Your task to perform on an android device: See recent photos Image 0: 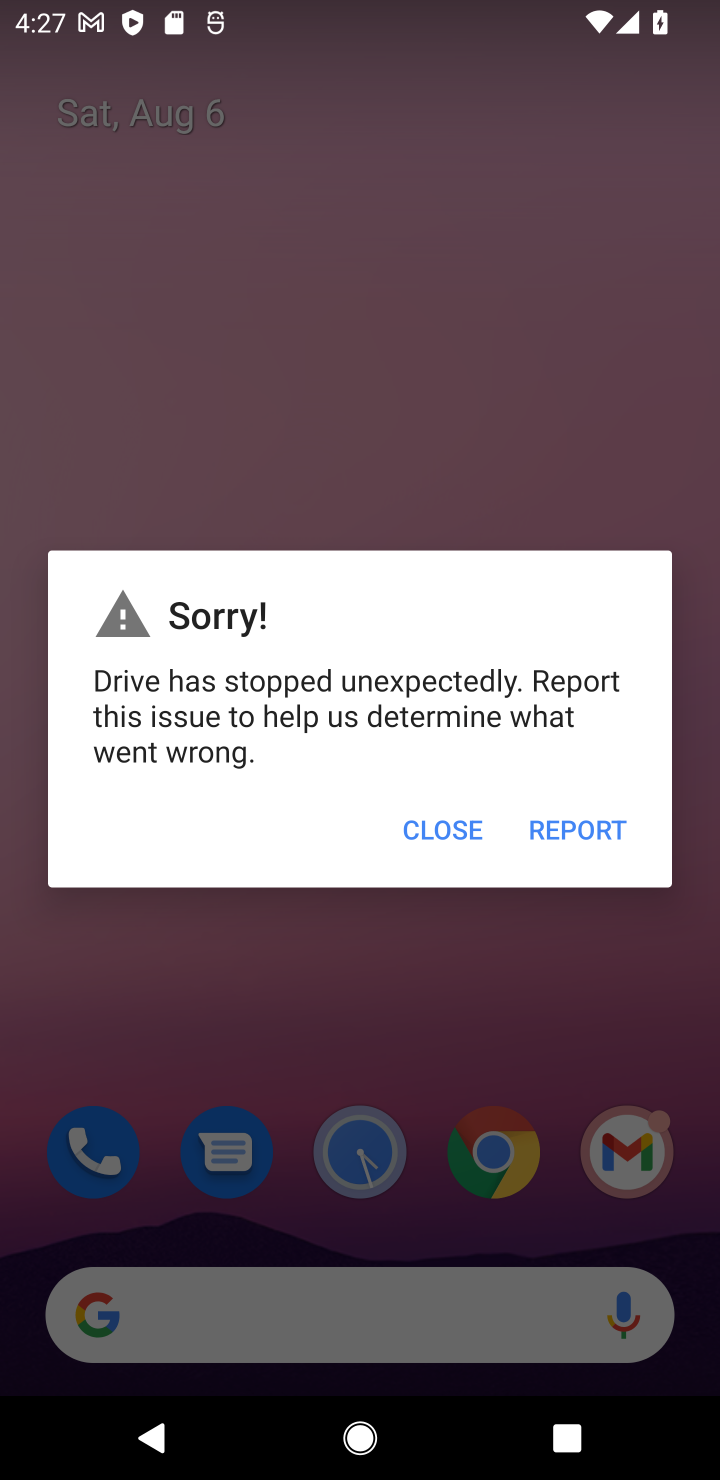
Step 0: press home button
Your task to perform on an android device: See recent photos Image 1: 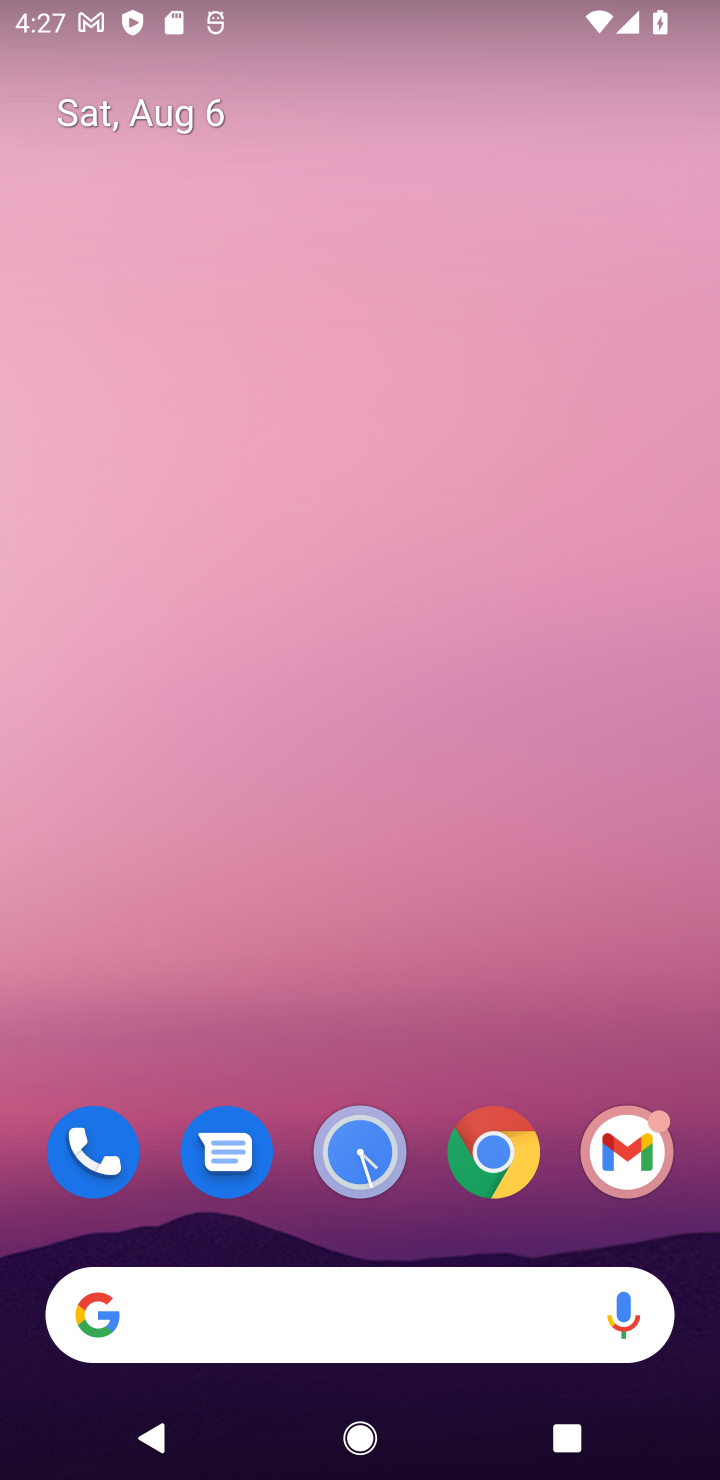
Step 1: drag from (315, 1232) to (413, 182)
Your task to perform on an android device: See recent photos Image 2: 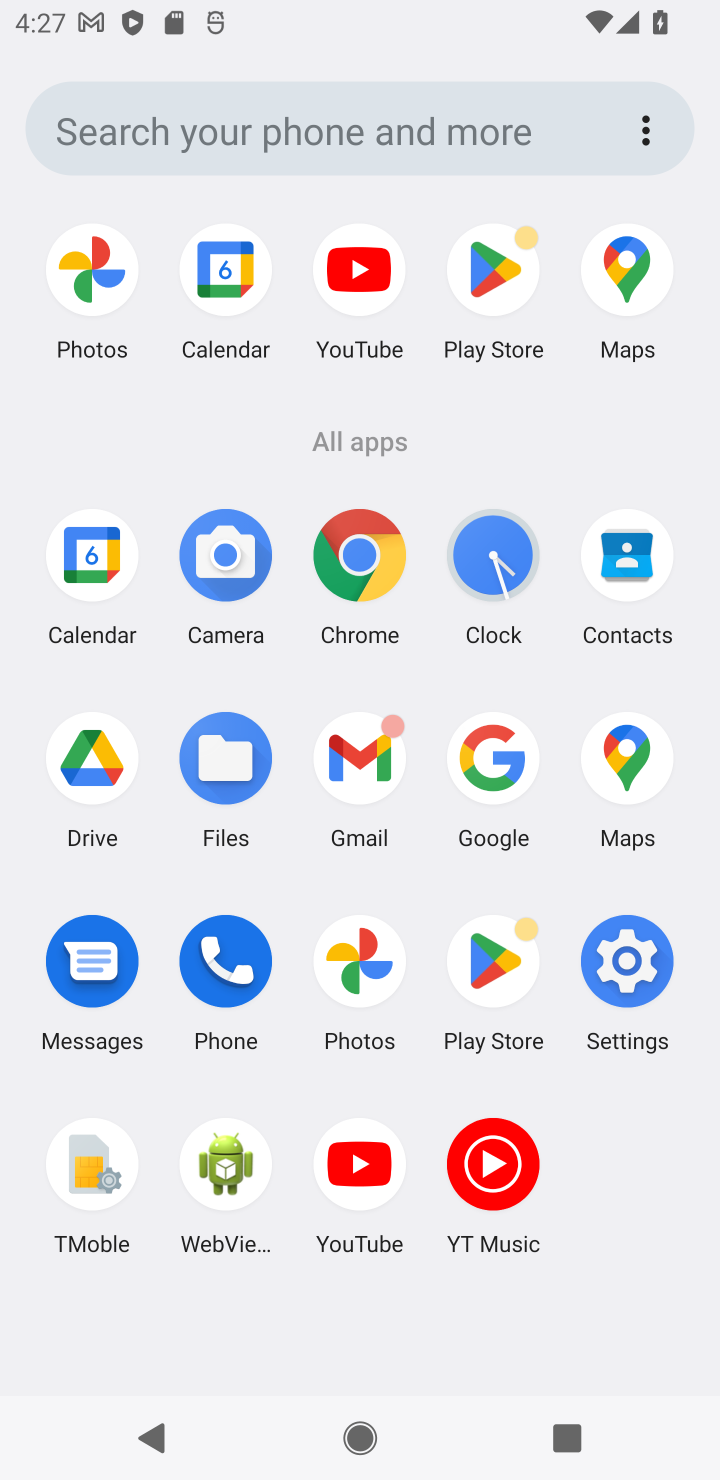
Step 2: click (362, 967)
Your task to perform on an android device: See recent photos Image 3: 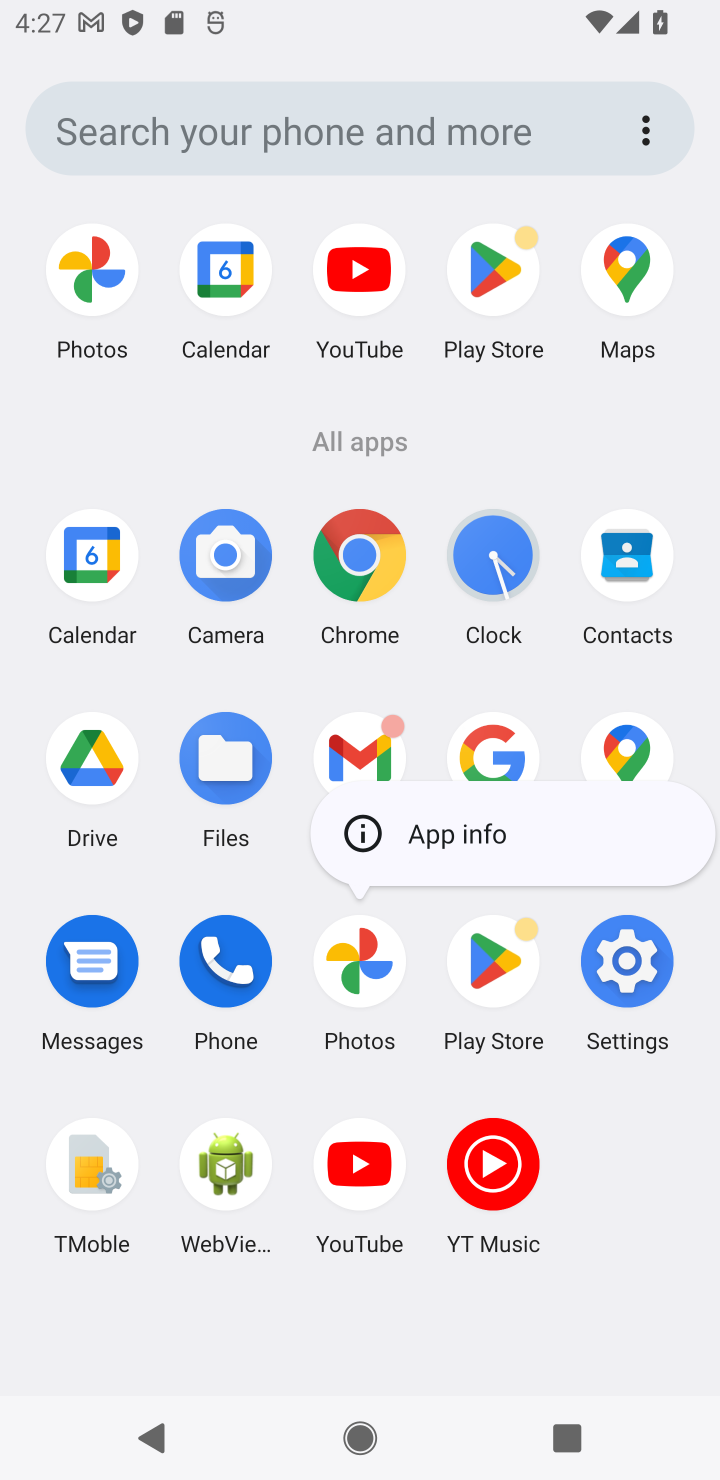
Step 3: click (344, 979)
Your task to perform on an android device: See recent photos Image 4: 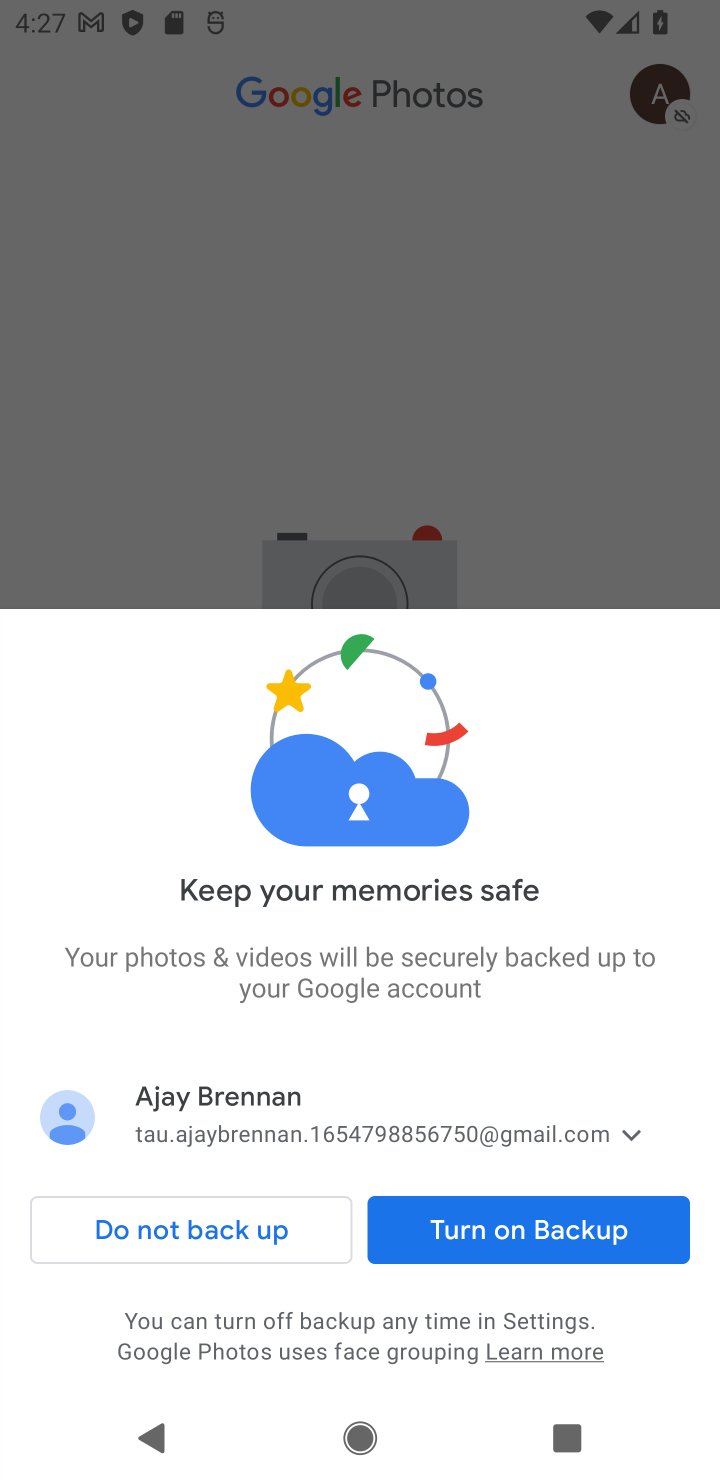
Step 4: click (474, 1232)
Your task to perform on an android device: See recent photos Image 5: 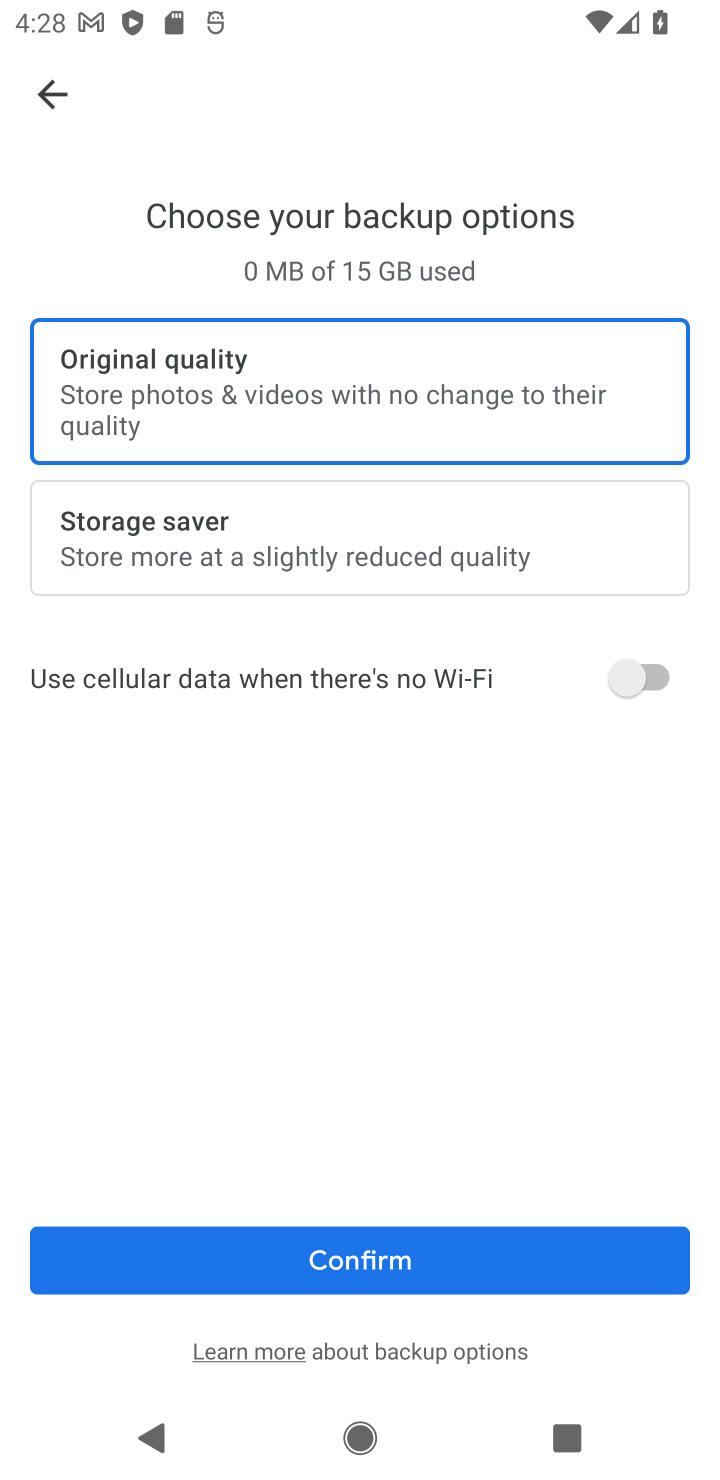
Step 5: click (452, 1254)
Your task to perform on an android device: See recent photos Image 6: 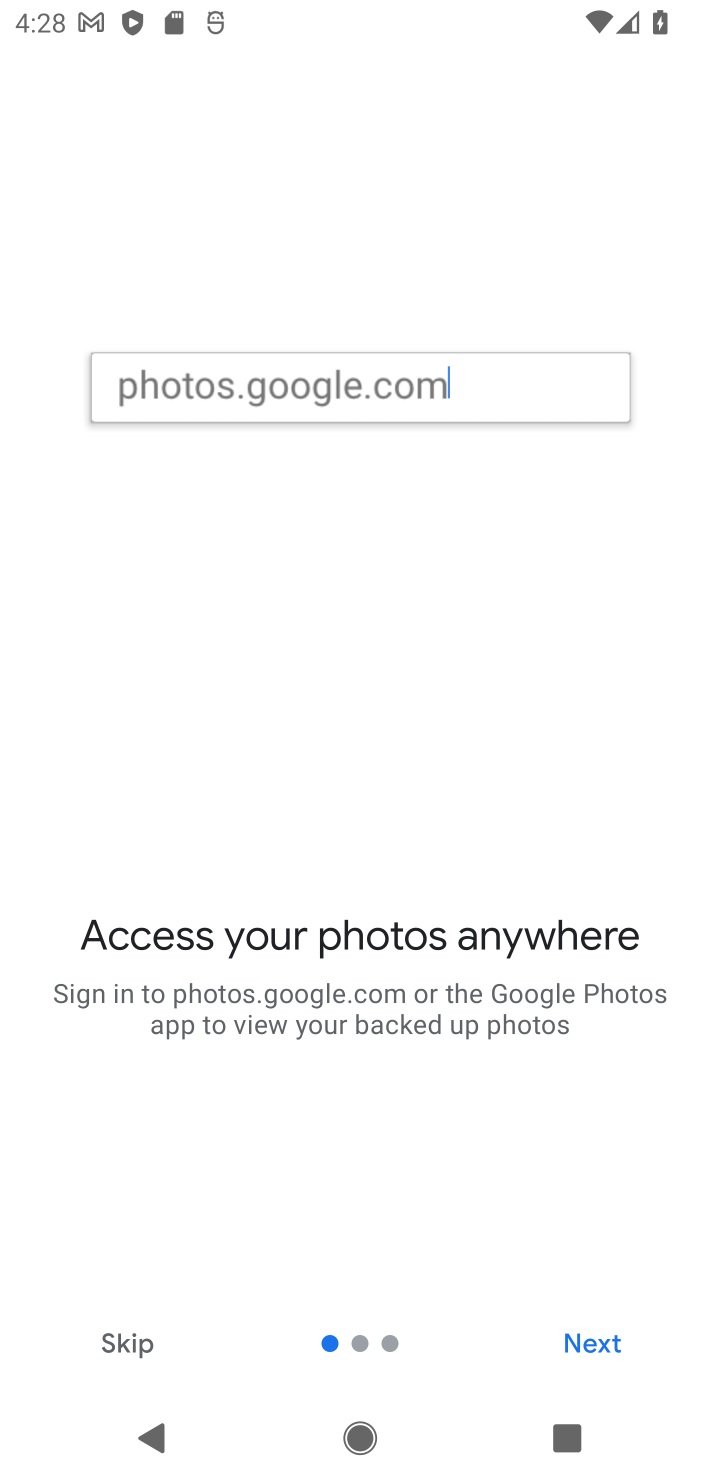
Step 6: click (597, 1339)
Your task to perform on an android device: See recent photos Image 7: 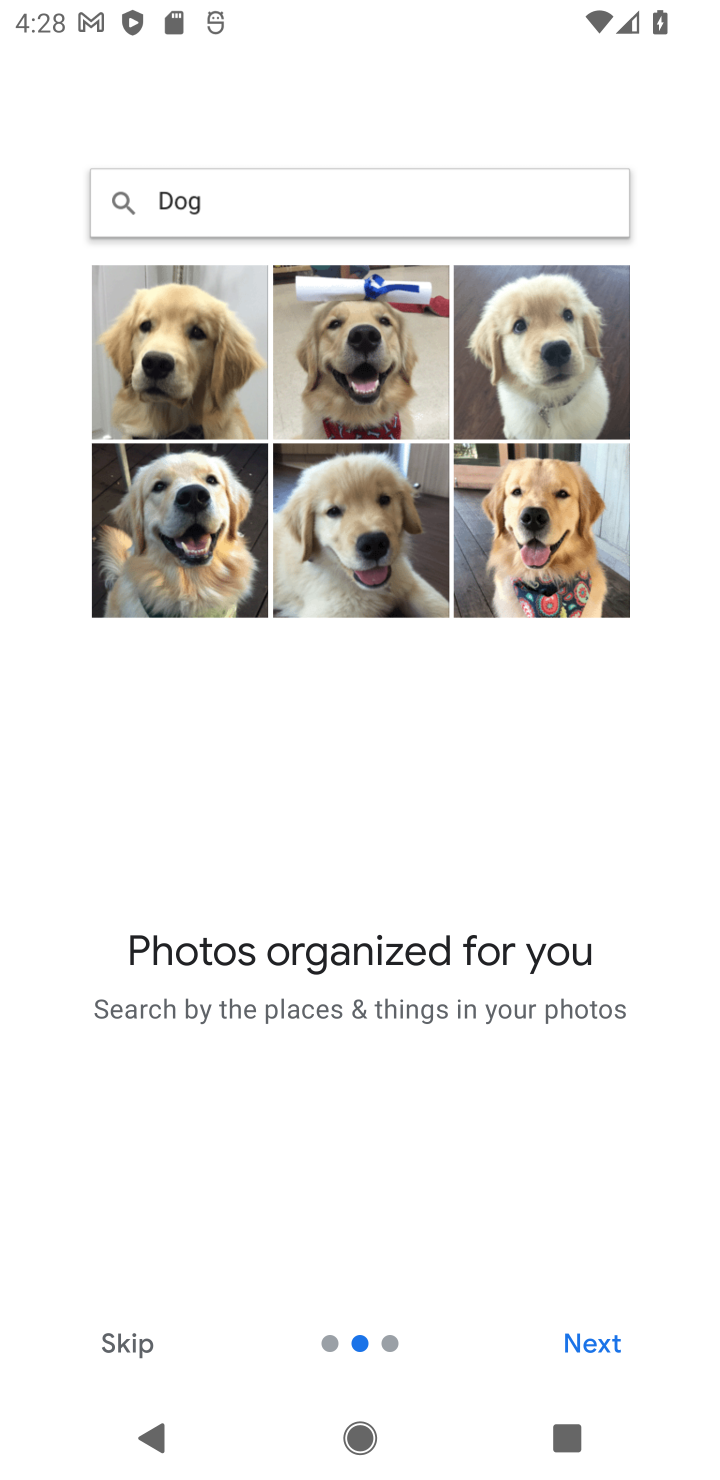
Step 7: click (560, 1338)
Your task to perform on an android device: See recent photos Image 8: 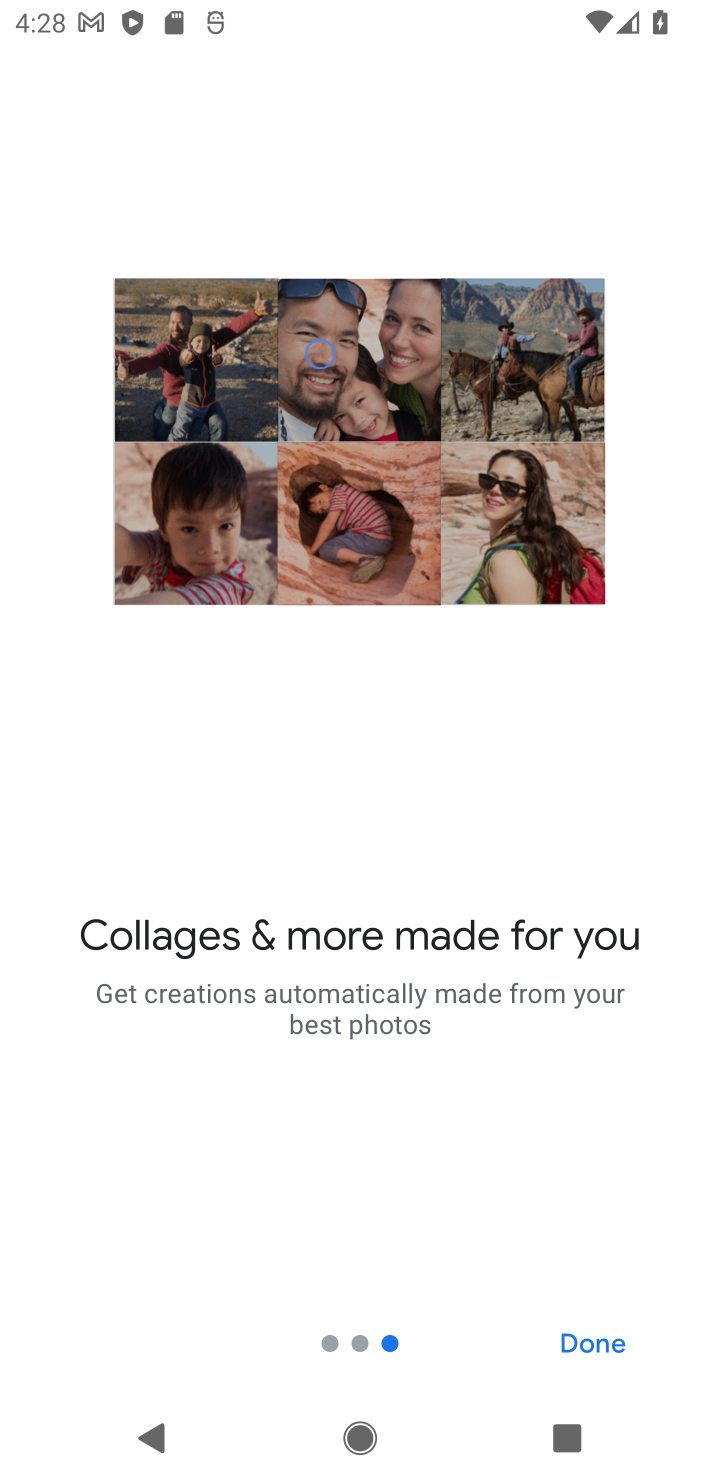
Step 8: click (560, 1338)
Your task to perform on an android device: See recent photos Image 9: 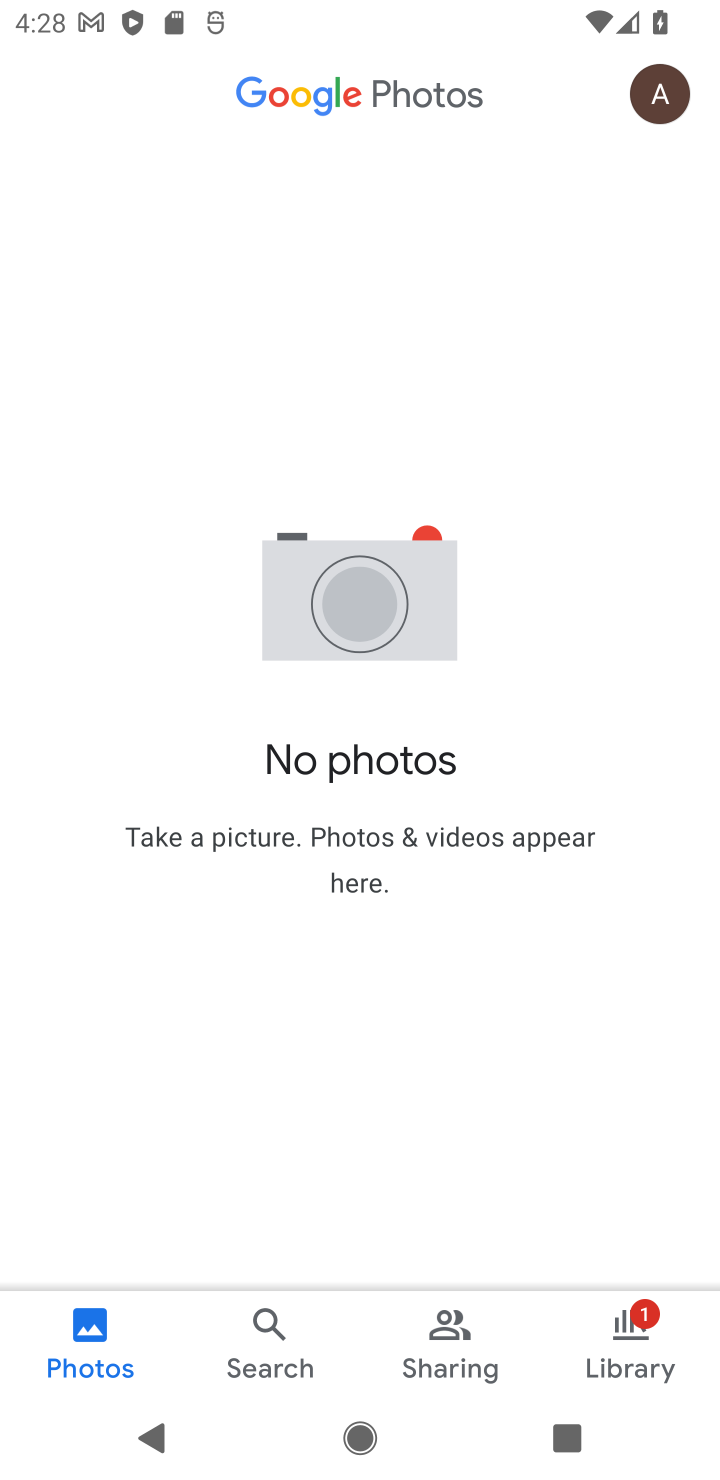
Step 9: task complete